Your task to perform on an android device: Open the web browser Image 0: 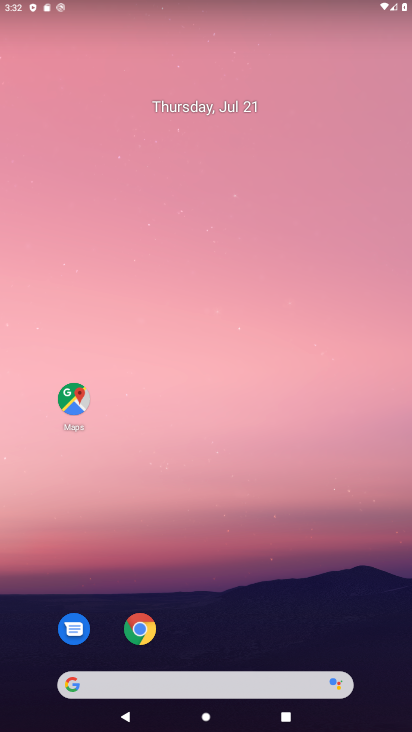
Step 0: click (149, 628)
Your task to perform on an android device: Open the web browser Image 1: 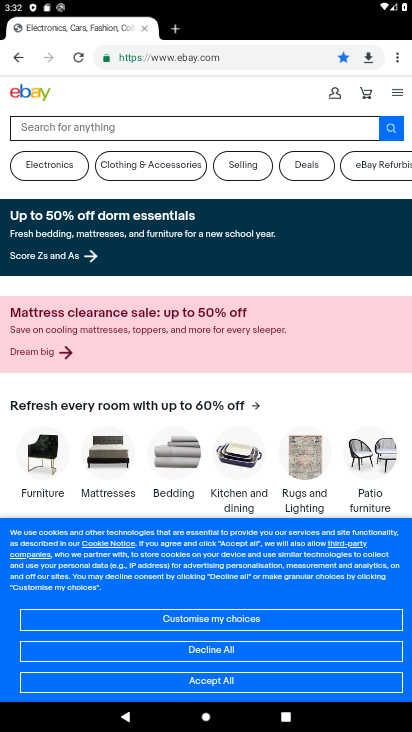
Step 1: task complete